Your task to perform on an android device: Open Maps and search for coffee Image 0: 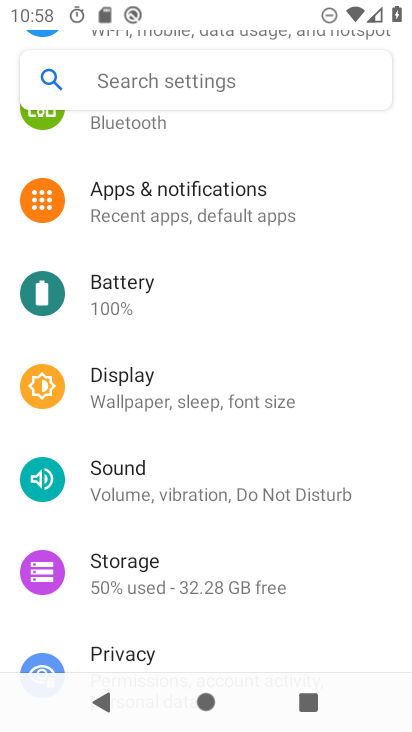
Step 0: press home button
Your task to perform on an android device: Open Maps and search for coffee Image 1: 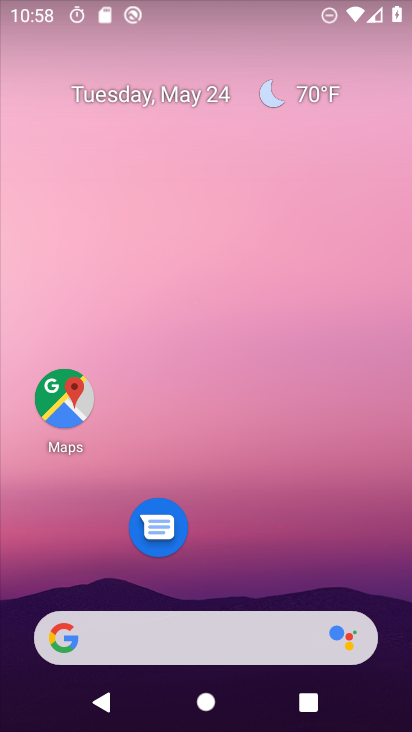
Step 1: drag from (272, 558) to (277, 136)
Your task to perform on an android device: Open Maps and search for coffee Image 2: 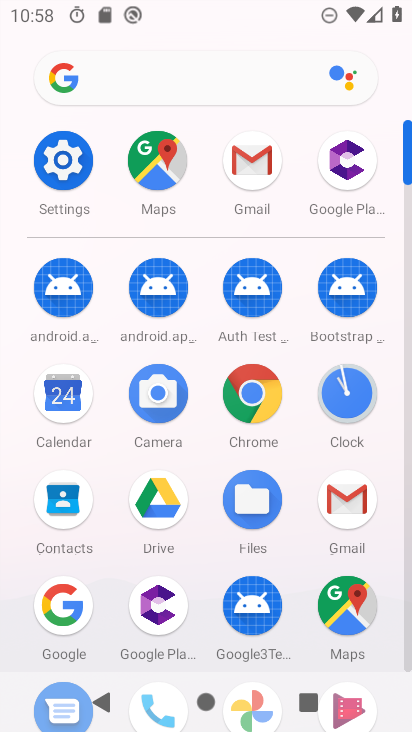
Step 2: click (151, 168)
Your task to perform on an android device: Open Maps and search for coffee Image 3: 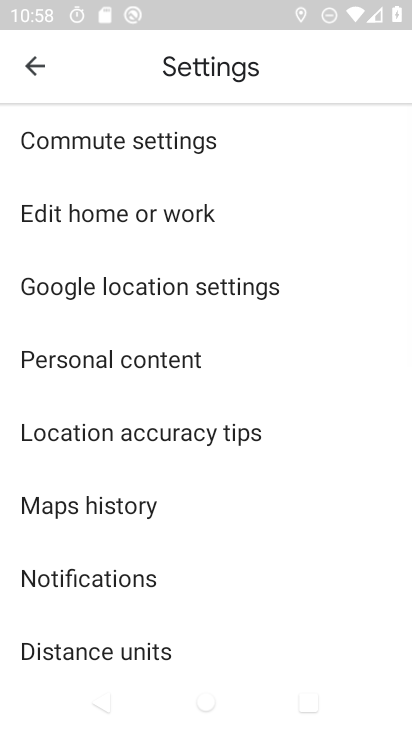
Step 3: press back button
Your task to perform on an android device: Open Maps and search for coffee Image 4: 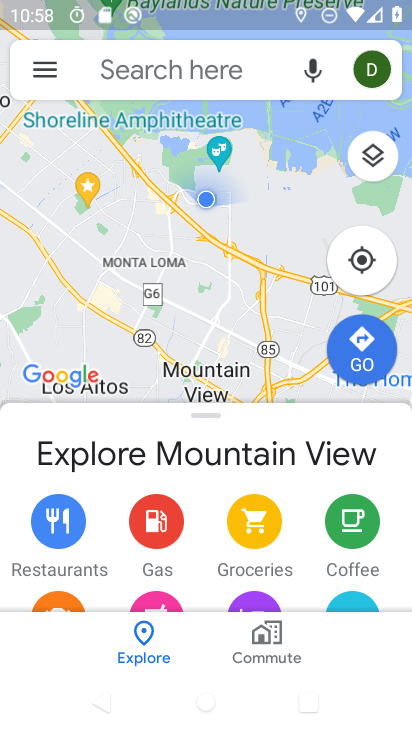
Step 4: click (172, 64)
Your task to perform on an android device: Open Maps and search for coffee Image 5: 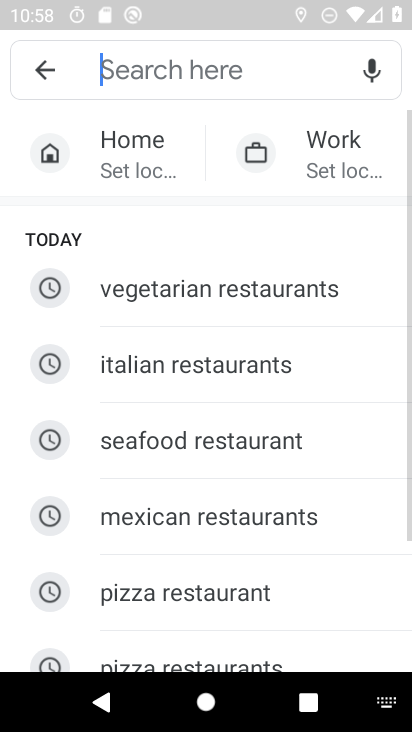
Step 5: drag from (262, 521) to (249, 217)
Your task to perform on an android device: Open Maps and search for coffee Image 6: 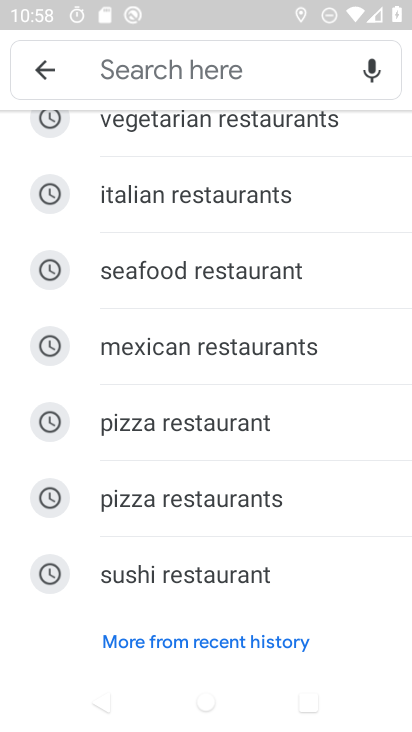
Step 6: click (200, 81)
Your task to perform on an android device: Open Maps and search for coffee Image 7: 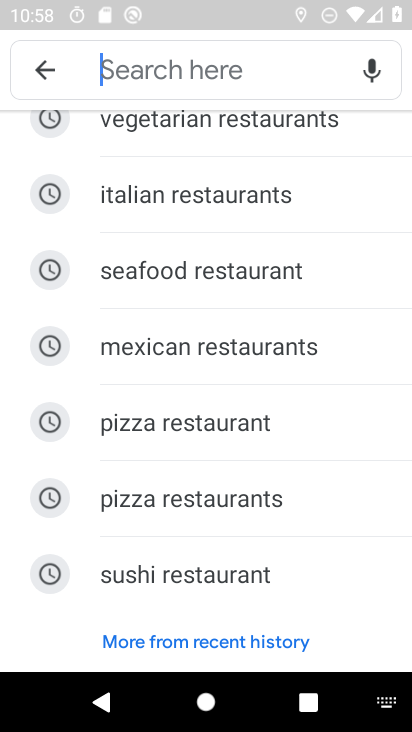
Step 7: type "coffee"
Your task to perform on an android device: Open Maps and search for coffee Image 8: 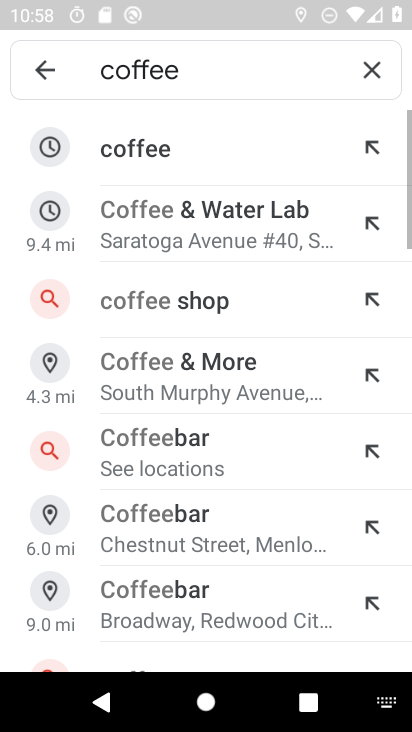
Step 8: click (155, 139)
Your task to perform on an android device: Open Maps and search for coffee Image 9: 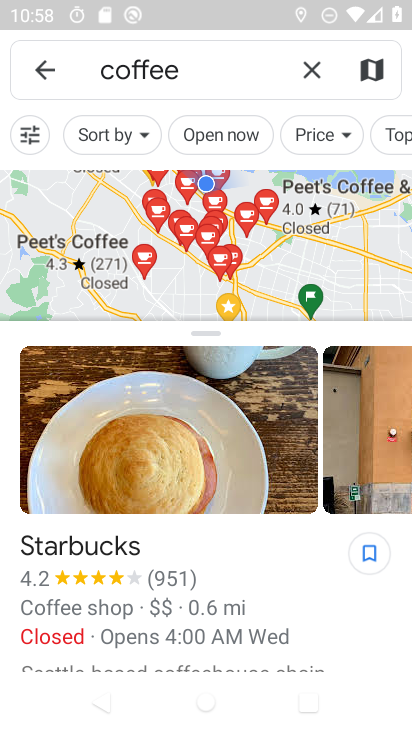
Step 9: task complete